Your task to perform on an android device: Open battery settings Image 0: 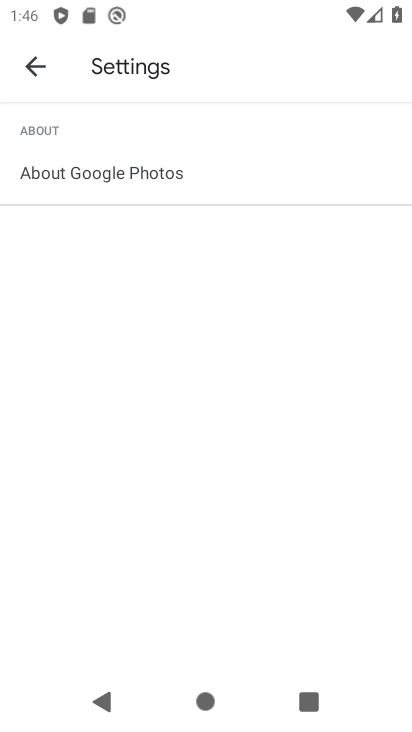
Step 0: press home button
Your task to perform on an android device: Open battery settings Image 1: 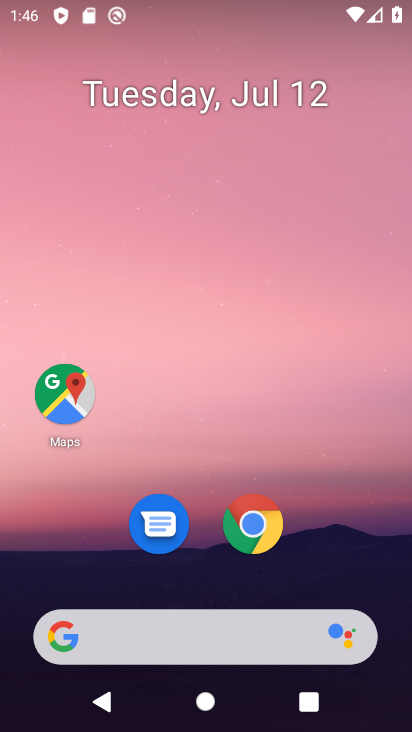
Step 1: drag from (331, 503) to (321, 12)
Your task to perform on an android device: Open battery settings Image 2: 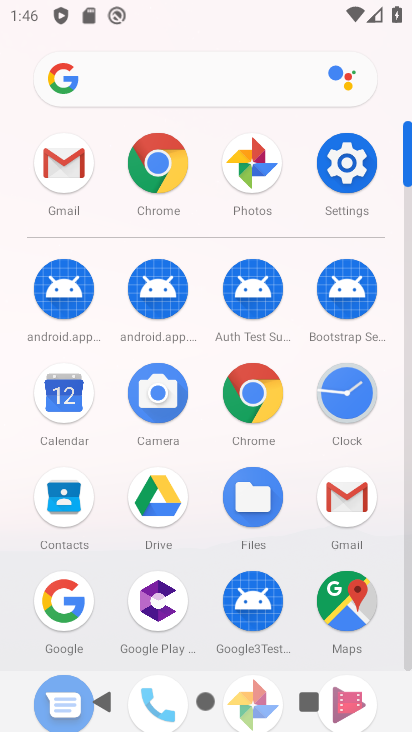
Step 2: click (348, 153)
Your task to perform on an android device: Open battery settings Image 3: 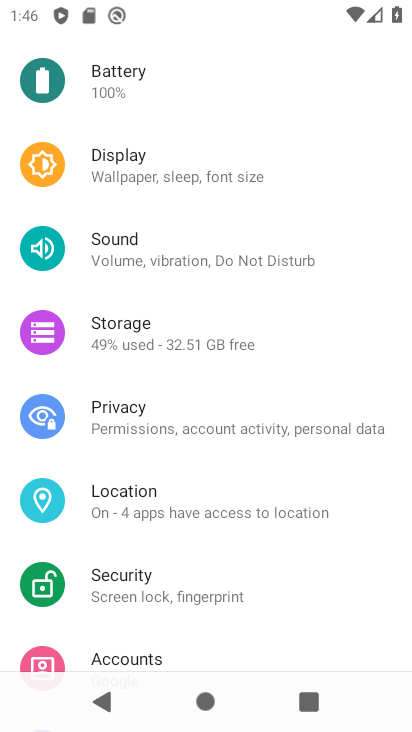
Step 3: click (127, 86)
Your task to perform on an android device: Open battery settings Image 4: 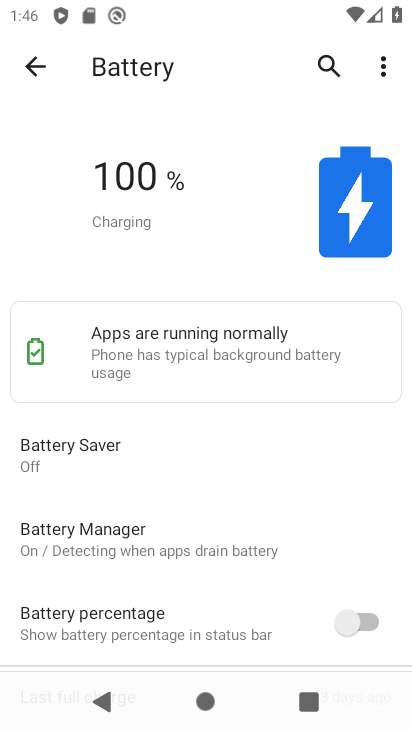
Step 4: task complete